Your task to perform on an android device: Go to wifi settings Image 0: 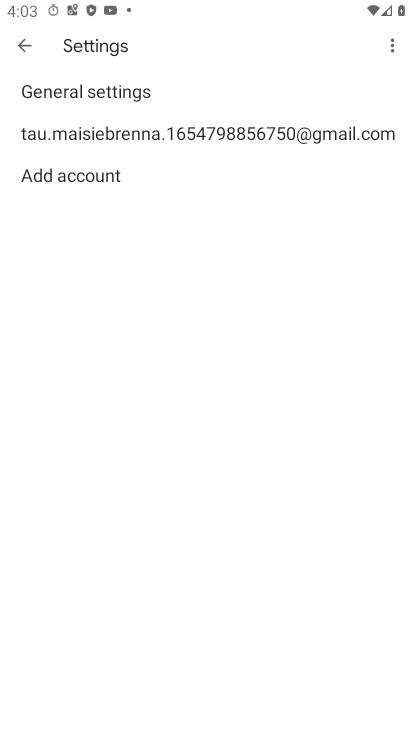
Step 0: press home button
Your task to perform on an android device: Go to wifi settings Image 1: 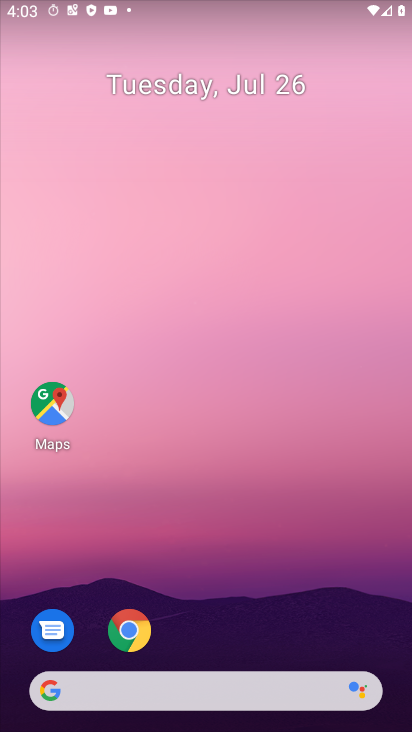
Step 1: drag from (229, 656) to (149, 178)
Your task to perform on an android device: Go to wifi settings Image 2: 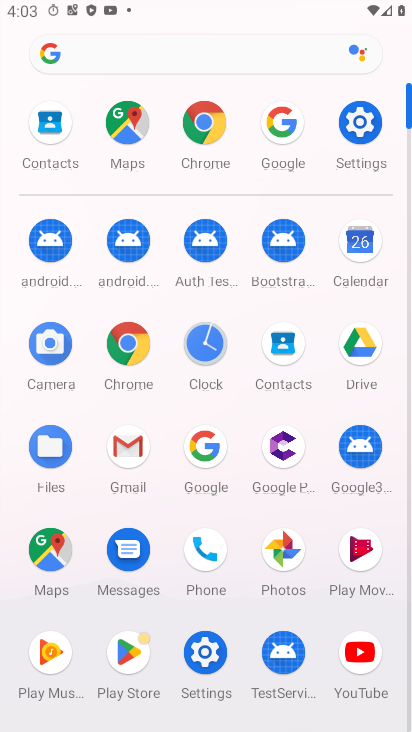
Step 2: click (362, 140)
Your task to perform on an android device: Go to wifi settings Image 3: 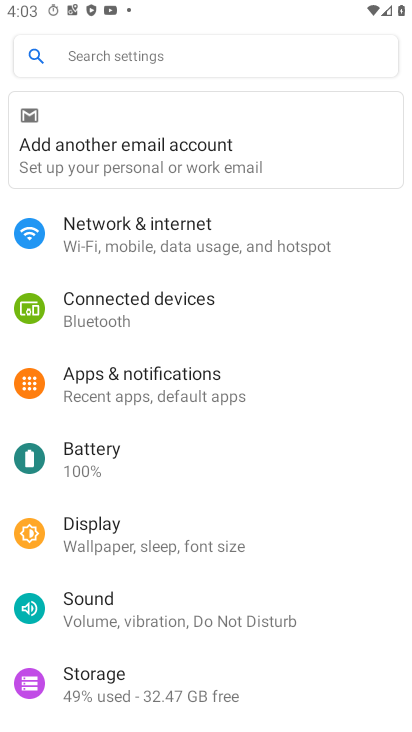
Step 3: click (229, 242)
Your task to perform on an android device: Go to wifi settings Image 4: 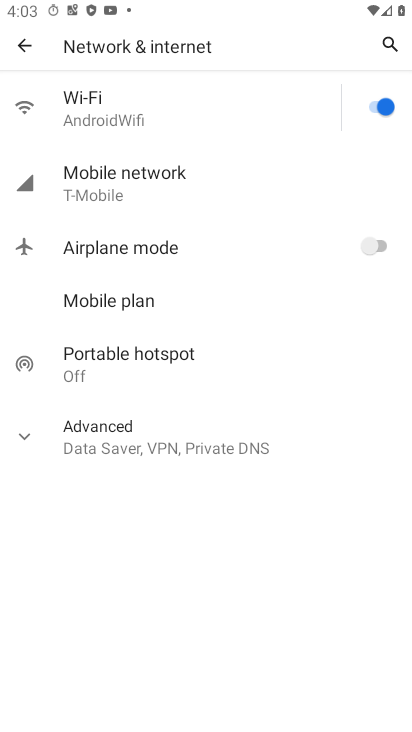
Step 4: click (164, 107)
Your task to perform on an android device: Go to wifi settings Image 5: 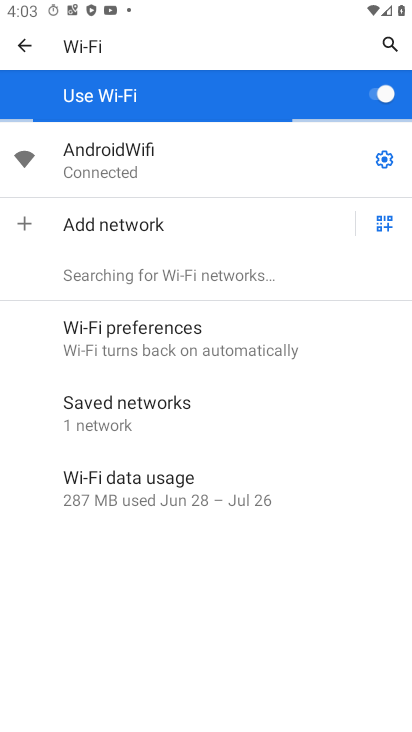
Step 5: task complete